Your task to perform on an android device: Open the web browser Image 0: 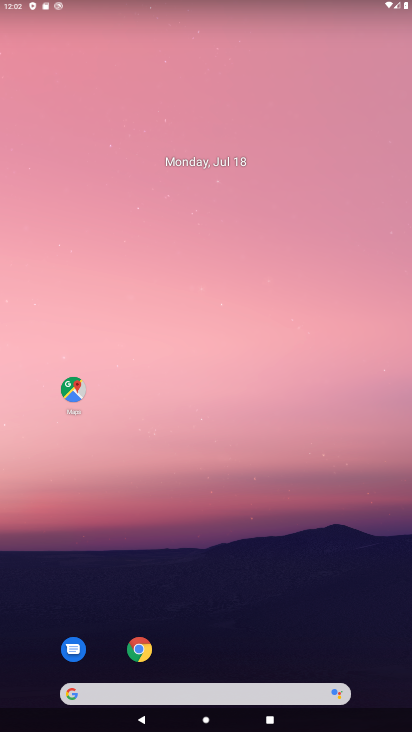
Step 0: drag from (238, 656) to (242, 280)
Your task to perform on an android device: Open the web browser Image 1: 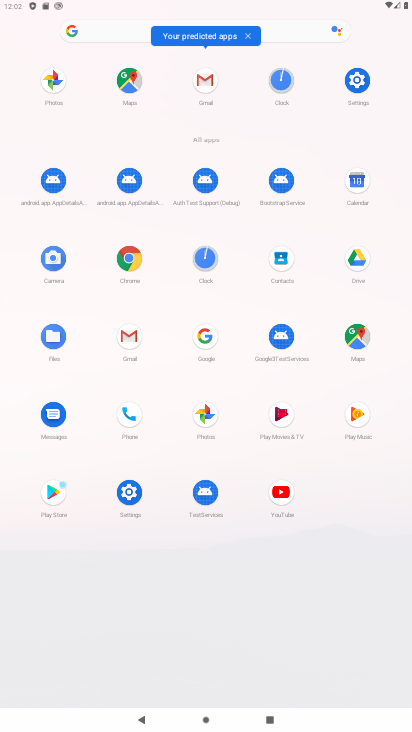
Step 1: click (131, 260)
Your task to perform on an android device: Open the web browser Image 2: 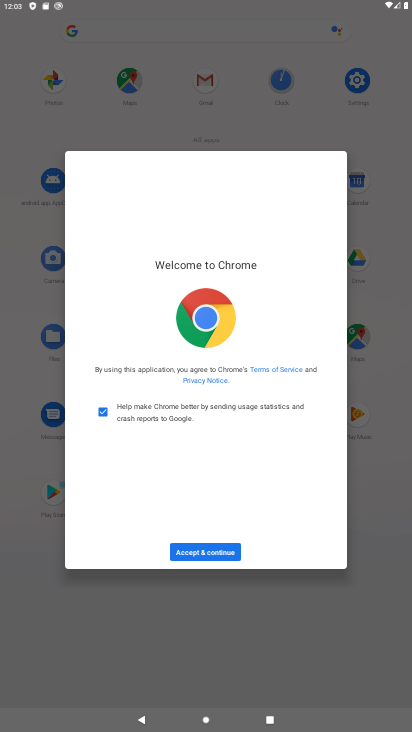
Step 2: click (210, 554)
Your task to perform on an android device: Open the web browser Image 3: 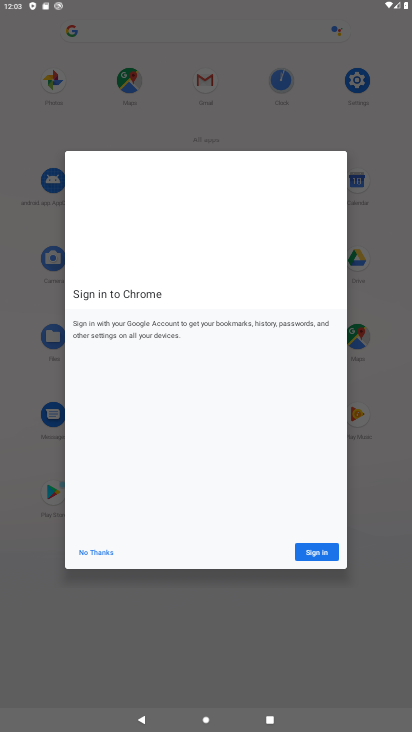
Step 3: click (305, 552)
Your task to perform on an android device: Open the web browser Image 4: 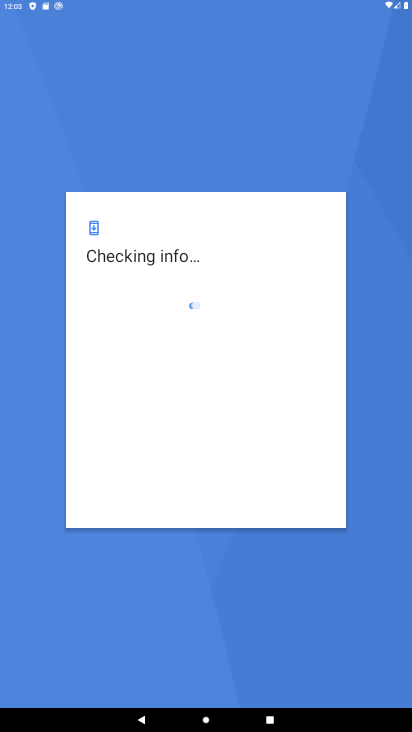
Step 4: task complete